Your task to perform on an android device: Open the calendar and show me this week's events? Image 0: 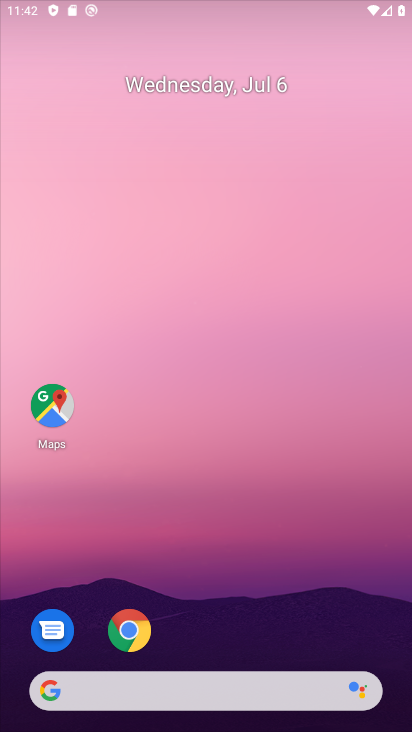
Step 0: drag from (220, 621) to (237, 148)
Your task to perform on an android device: Open the calendar and show me this week's events? Image 1: 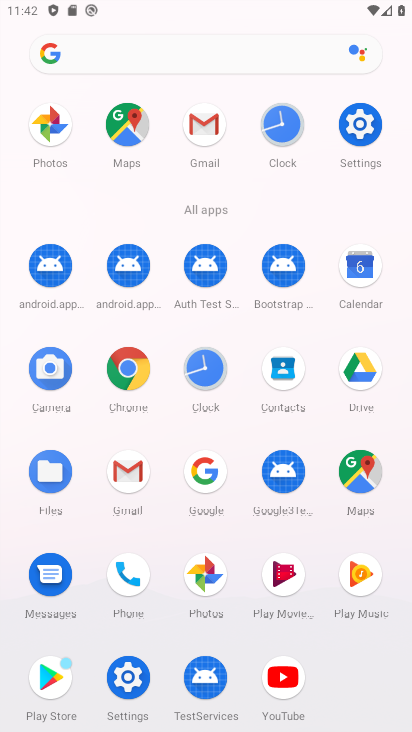
Step 1: click (366, 264)
Your task to perform on an android device: Open the calendar and show me this week's events? Image 2: 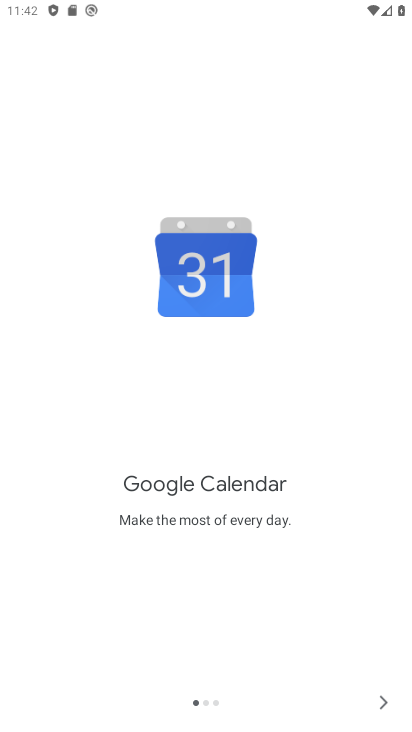
Step 2: click (376, 698)
Your task to perform on an android device: Open the calendar and show me this week's events? Image 3: 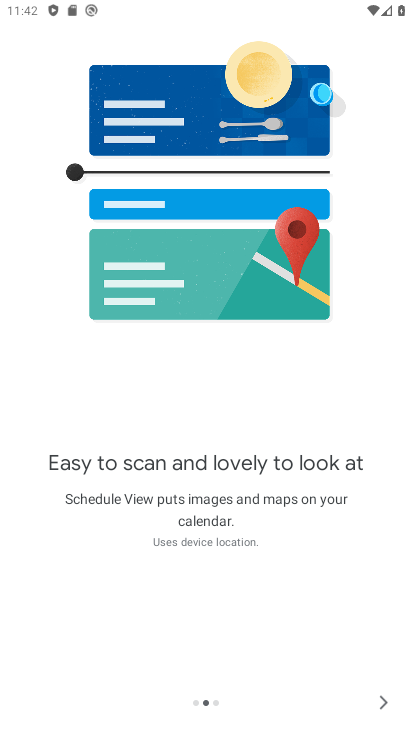
Step 3: click (376, 698)
Your task to perform on an android device: Open the calendar and show me this week's events? Image 4: 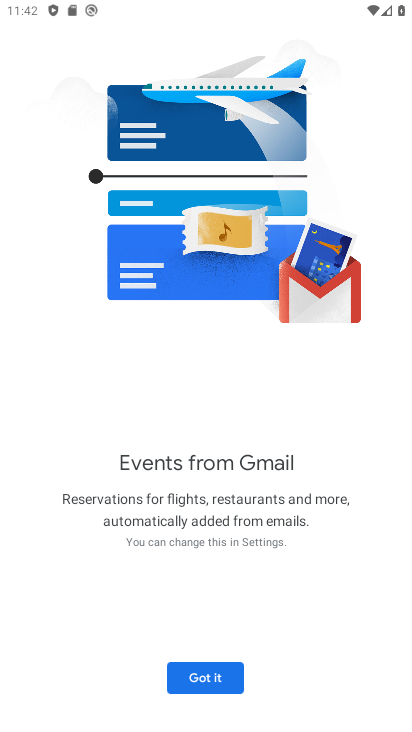
Step 4: click (211, 678)
Your task to perform on an android device: Open the calendar and show me this week's events? Image 5: 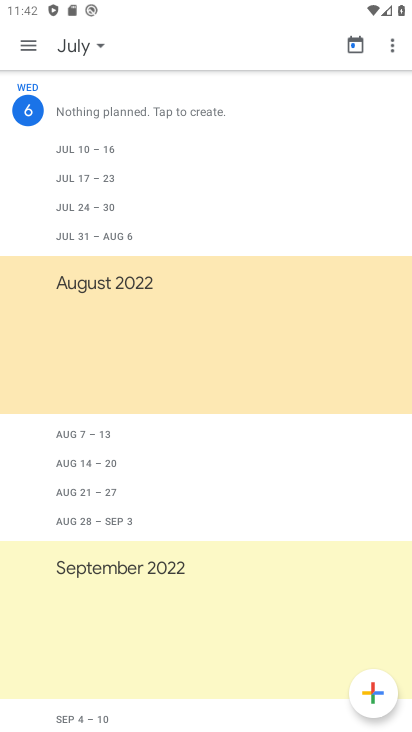
Step 5: click (25, 38)
Your task to perform on an android device: Open the calendar and show me this week's events? Image 6: 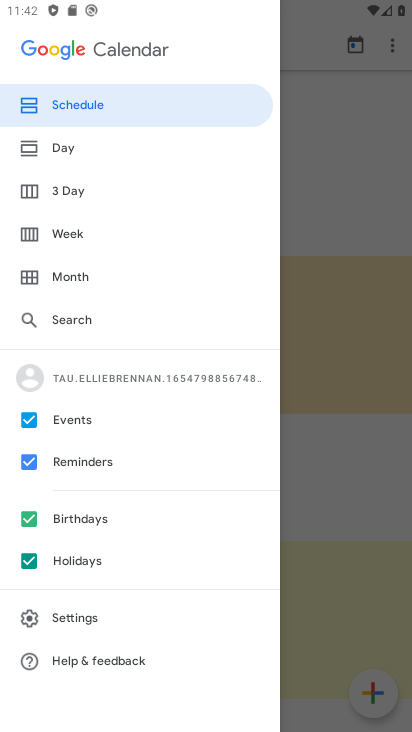
Step 6: click (61, 459)
Your task to perform on an android device: Open the calendar and show me this week's events? Image 7: 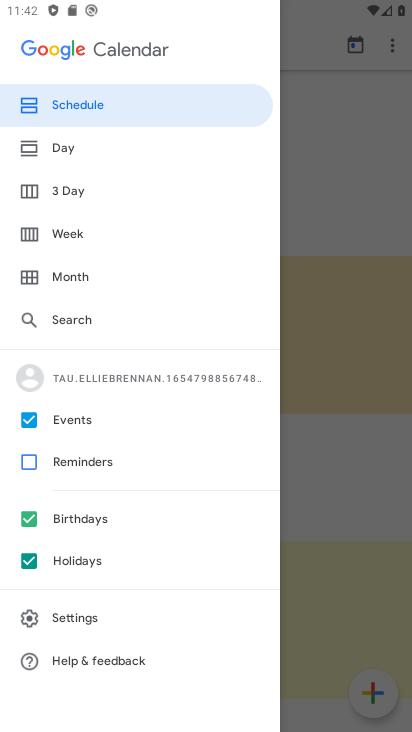
Step 7: click (63, 531)
Your task to perform on an android device: Open the calendar and show me this week's events? Image 8: 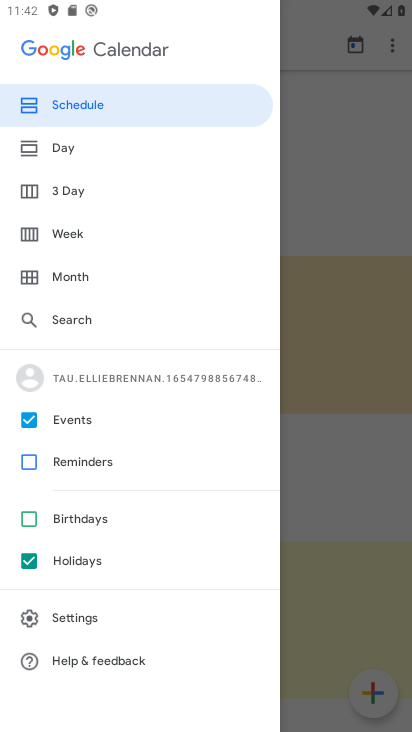
Step 8: click (57, 566)
Your task to perform on an android device: Open the calendar and show me this week's events? Image 9: 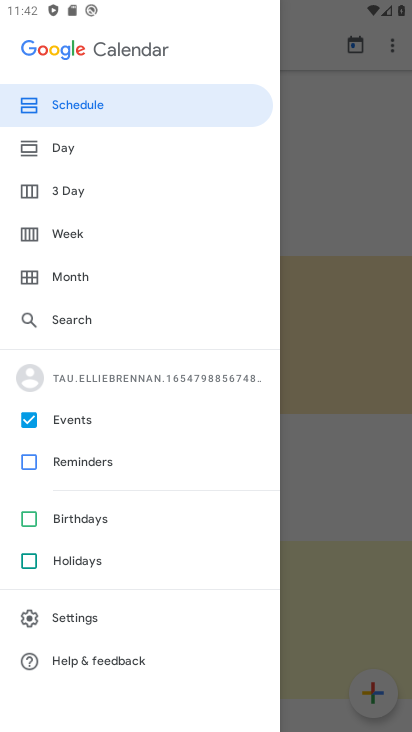
Step 9: click (64, 232)
Your task to perform on an android device: Open the calendar and show me this week's events? Image 10: 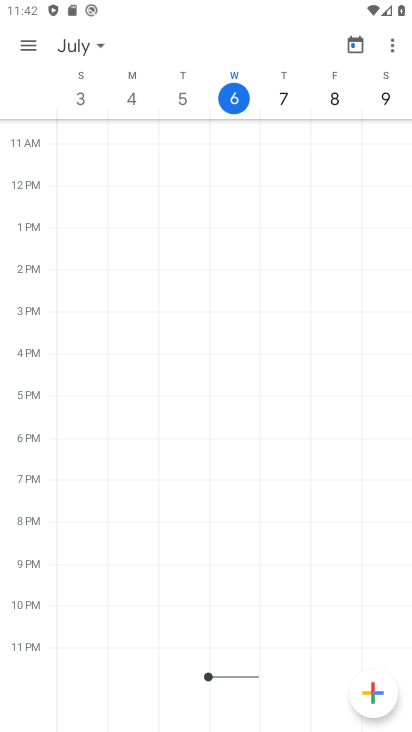
Step 10: task complete